Your task to perform on an android device: turn off sleep mode Image 0: 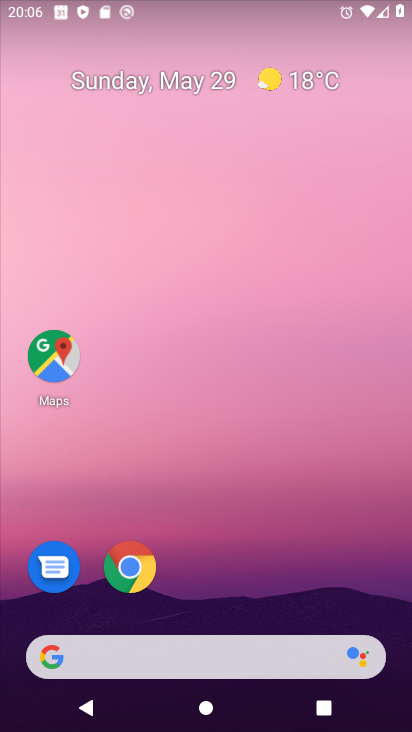
Step 0: drag from (390, 679) to (361, 130)
Your task to perform on an android device: turn off sleep mode Image 1: 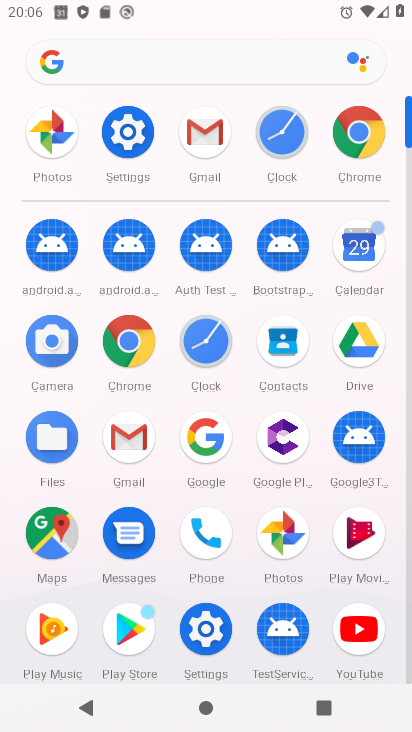
Step 1: click (112, 143)
Your task to perform on an android device: turn off sleep mode Image 2: 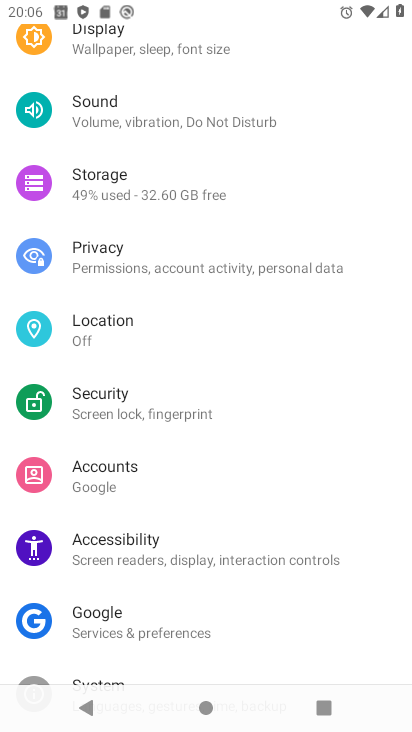
Step 2: click (98, 44)
Your task to perform on an android device: turn off sleep mode Image 3: 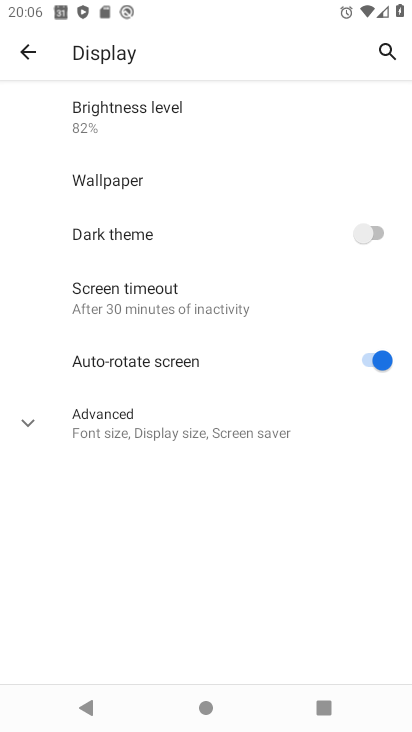
Step 3: click (124, 307)
Your task to perform on an android device: turn off sleep mode Image 4: 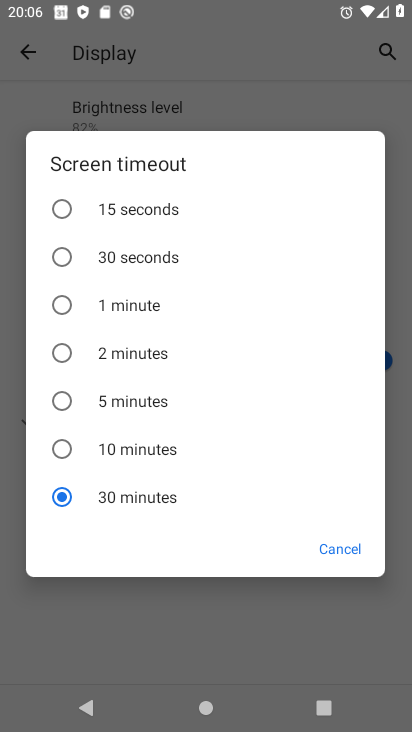
Step 4: task complete